Your task to perform on an android device: toggle airplane mode Image 0: 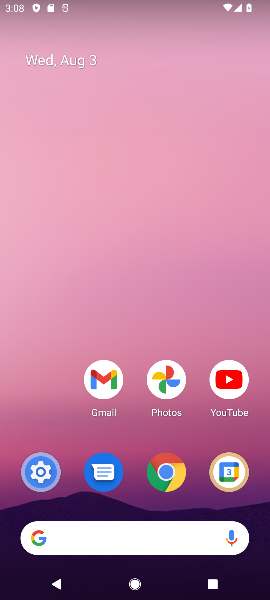
Step 0: drag from (223, 4) to (197, 525)
Your task to perform on an android device: toggle airplane mode Image 1: 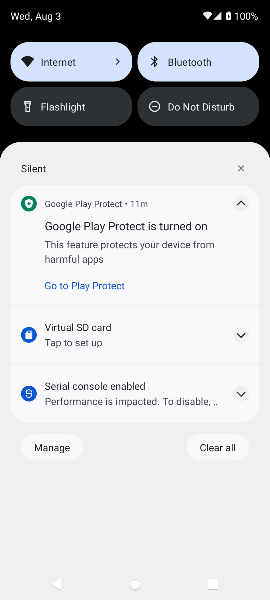
Step 1: press back button
Your task to perform on an android device: toggle airplane mode Image 2: 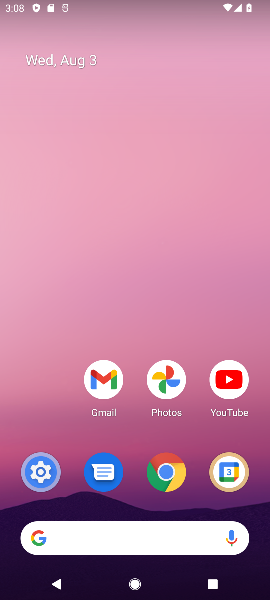
Step 2: drag from (228, 12) to (165, 451)
Your task to perform on an android device: toggle airplane mode Image 3: 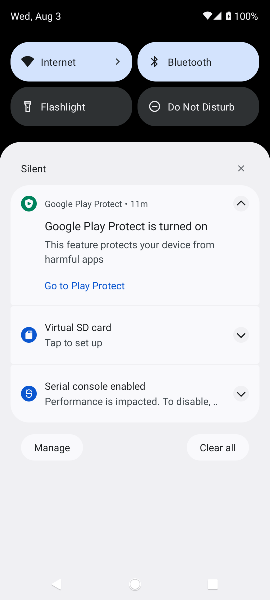
Step 3: drag from (160, 134) to (153, 542)
Your task to perform on an android device: toggle airplane mode Image 4: 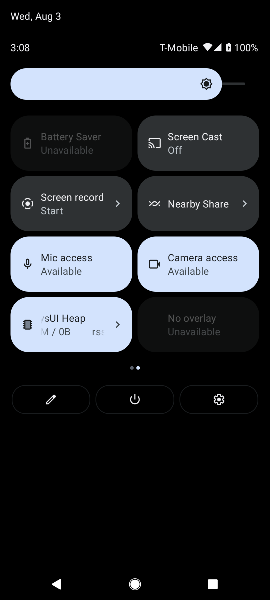
Step 4: drag from (10, 202) to (227, 213)
Your task to perform on an android device: toggle airplane mode Image 5: 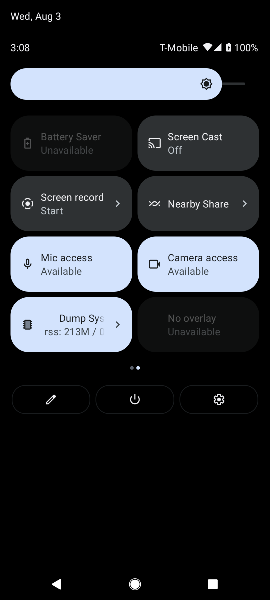
Step 5: drag from (25, 160) to (268, 179)
Your task to perform on an android device: toggle airplane mode Image 6: 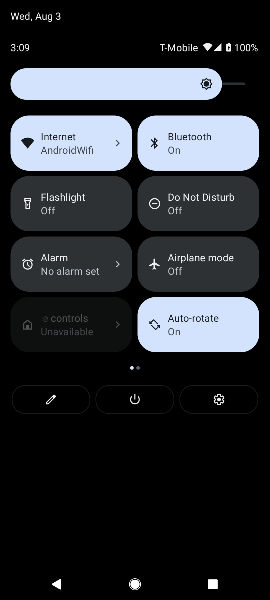
Step 6: click (179, 260)
Your task to perform on an android device: toggle airplane mode Image 7: 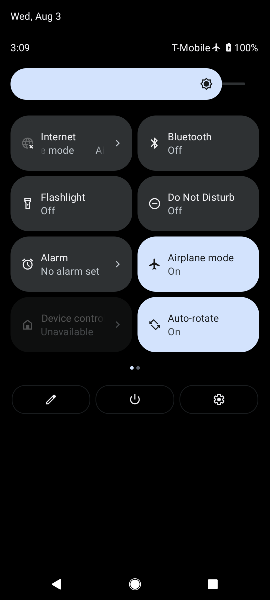
Step 7: task complete